Your task to perform on an android device: Open Chrome and go to the settings page Image 0: 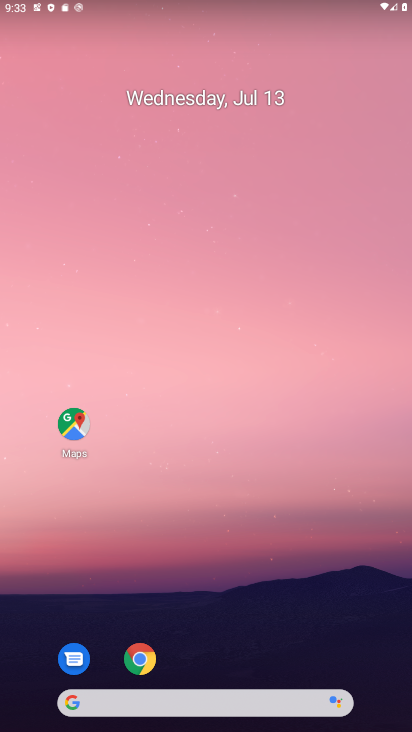
Step 0: click (139, 675)
Your task to perform on an android device: Open Chrome and go to the settings page Image 1: 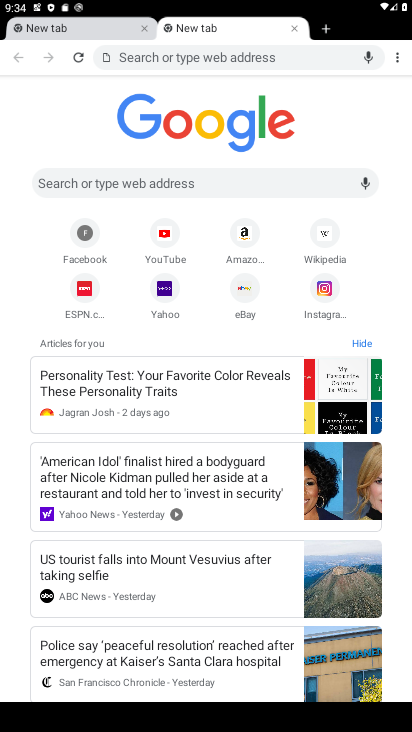
Step 1: task complete